Your task to perform on an android device: empty trash in google photos Image 0: 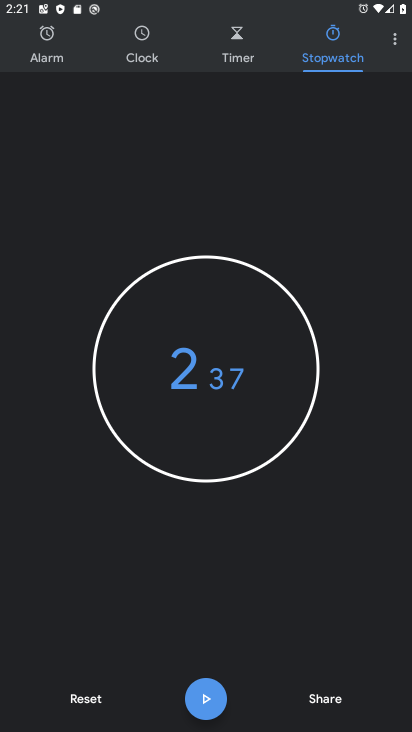
Step 0: press back button
Your task to perform on an android device: empty trash in google photos Image 1: 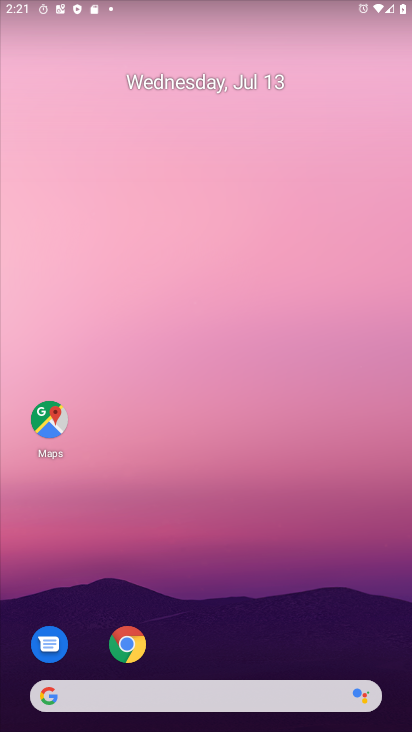
Step 1: drag from (221, 617) to (291, 11)
Your task to perform on an android device: empty trash in google photos Image 2: 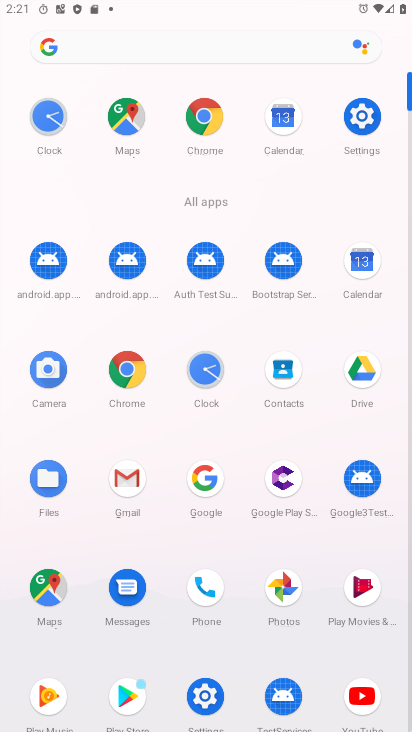
Step 2: click (276, 599)
Your task to perform on an android device: empty trash in google photos Image 3: 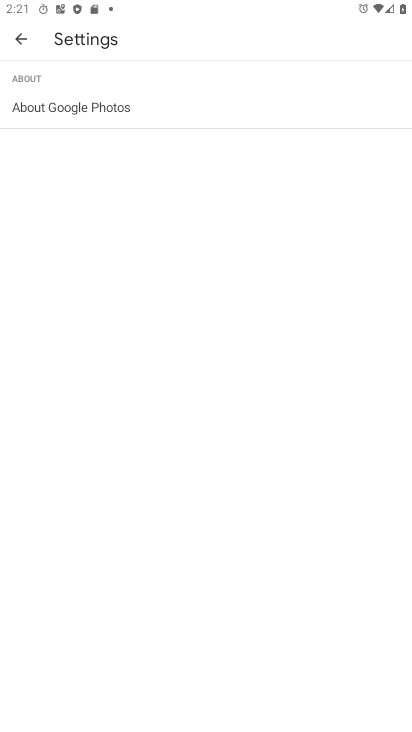
Step 3: click (16, 28)
Your task to perform on an android device: empty trash in google photos Image 4: 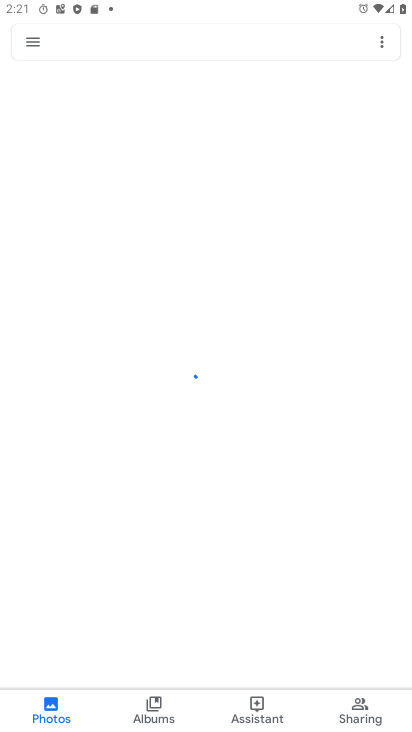
Step 4: click (33, 36)
Your task to perform on an android device: empty trash in google photos Image 5: 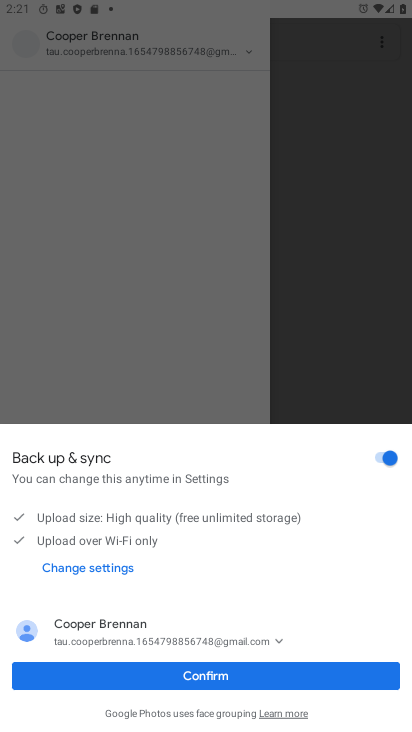
Step 5: click (204, 674)
Your task to perform on an android device: empty trash in google photos Image 6: 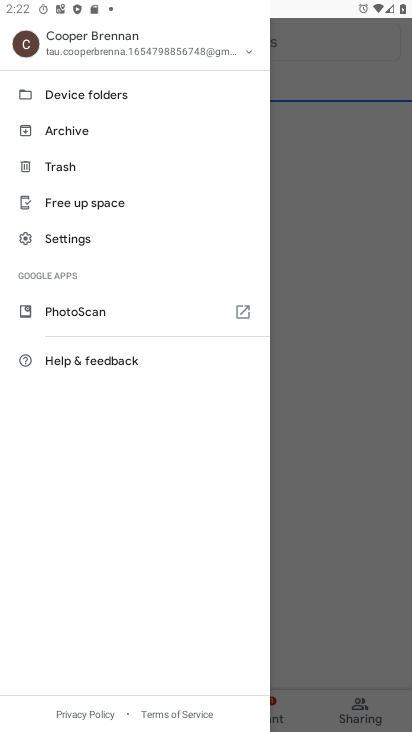
Step 6: click (63, 161)
Your task to perform on an android device: empty trash in google photos Image 7: 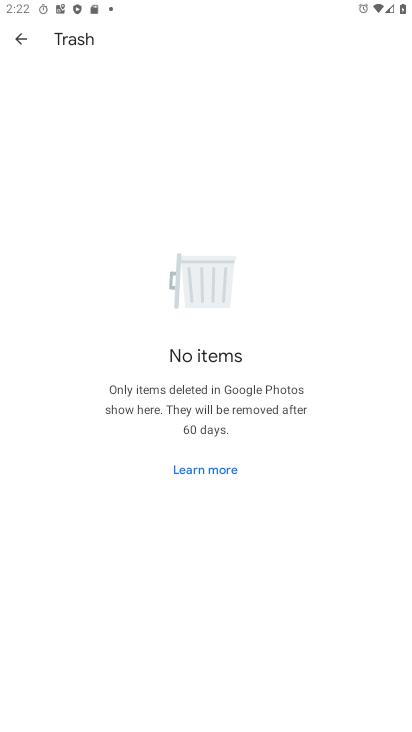
Step 7: task complete